Your task to perform on an android device: turn off location history Image 0: 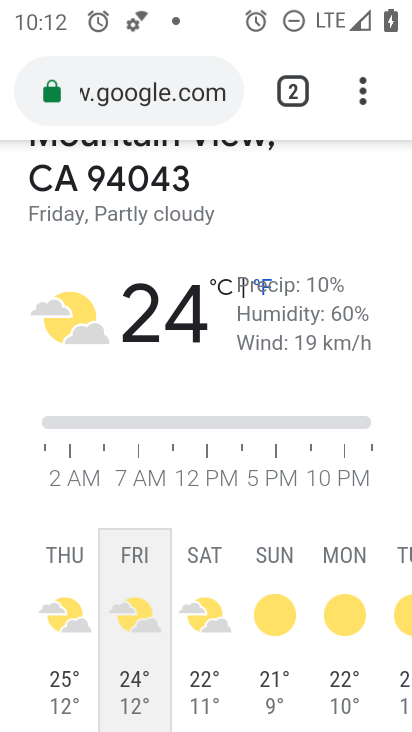
Step 0: press home button
Your task to perform on an android device: turn off location history Image 1: 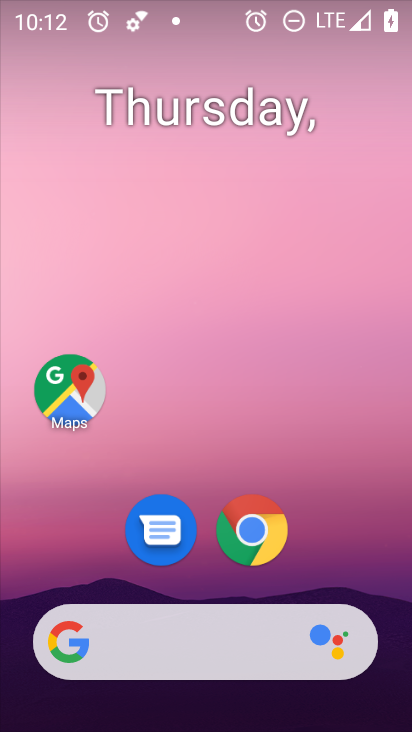
Step 1: drag from (325, 567) to (279, 38)
Your task to perform on an android device: turn off location history Image 2: 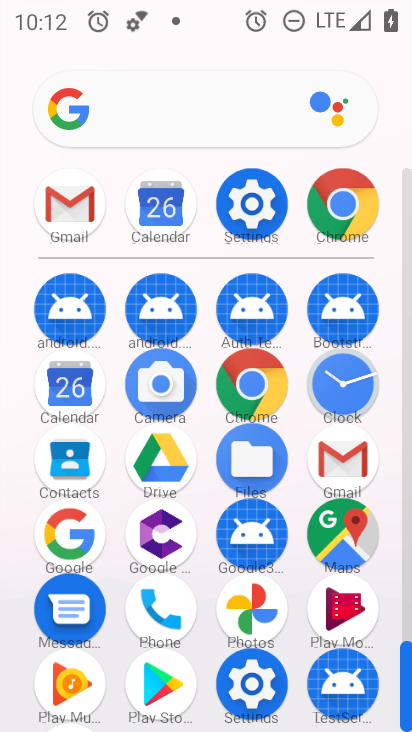
Step 2: drag from (10, 590) to (9, 254)
Your task to perform on an android device: turn off location history Image 3: 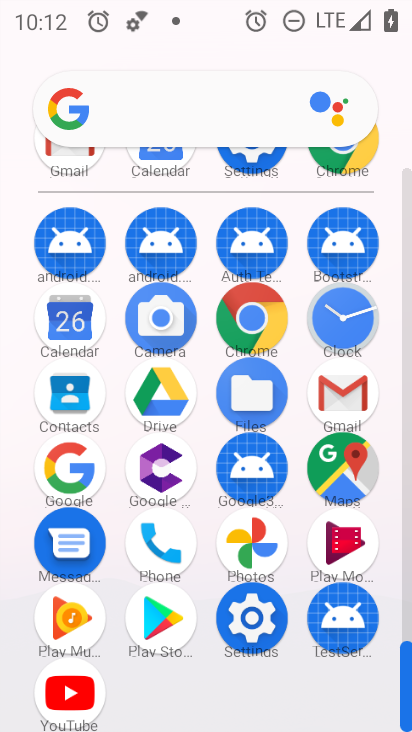
Step 3: click (249, 614)
Your task to perform on an android device: turn off location history Image 4: 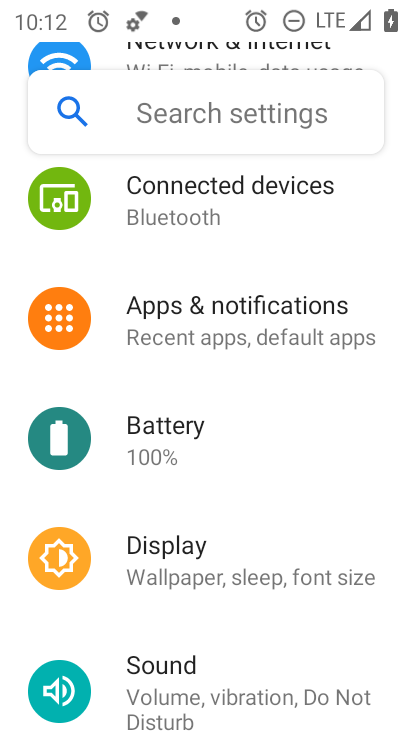
Step 4: drag from (265, 258) to (271, 665)
Your task to perform on an android device: turn off location history Image 5: 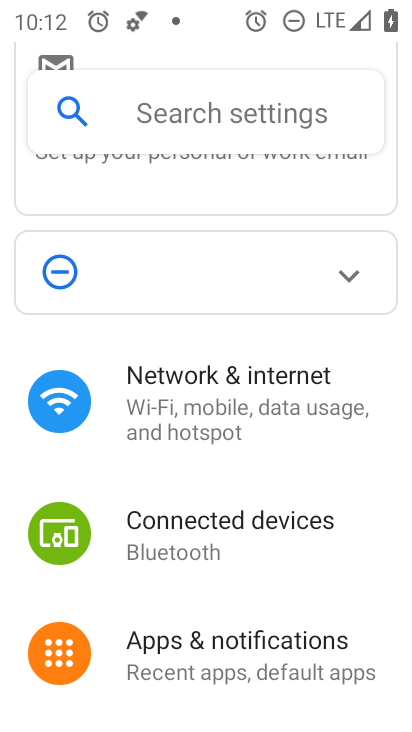
Step 5: drag from (267, 641) to (272, 256)
Your task to perform on an android device: turn off location history Image 6: 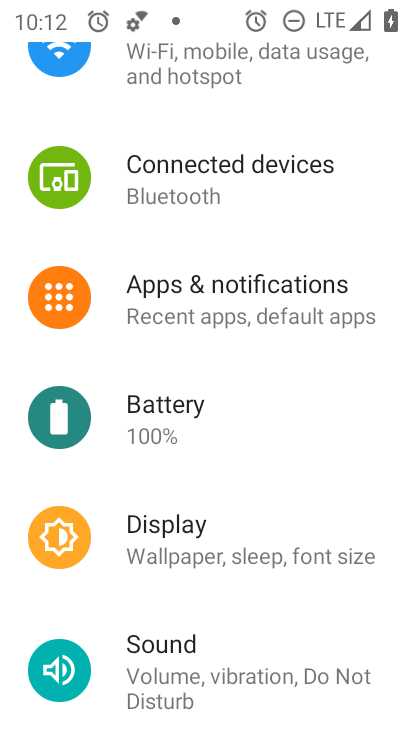
Step 6: drag from (251, 598) to (260, 234)
Your task to perform on an android device: turn off location history Image 7: 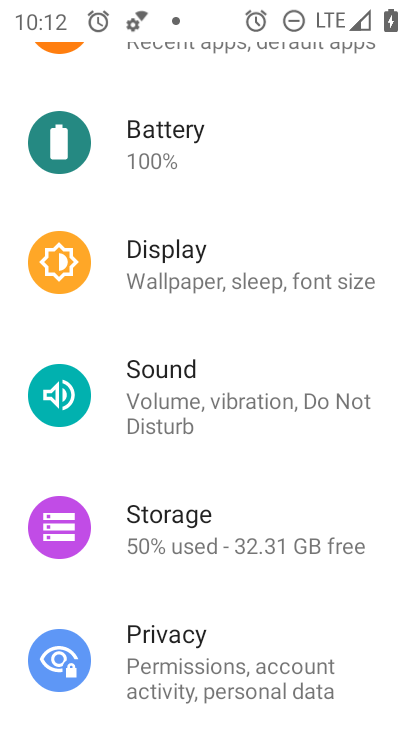
Step 7: drag from (263, 625) to (284, 168)
Your task to perform on an android device: turn off location history Image 8: 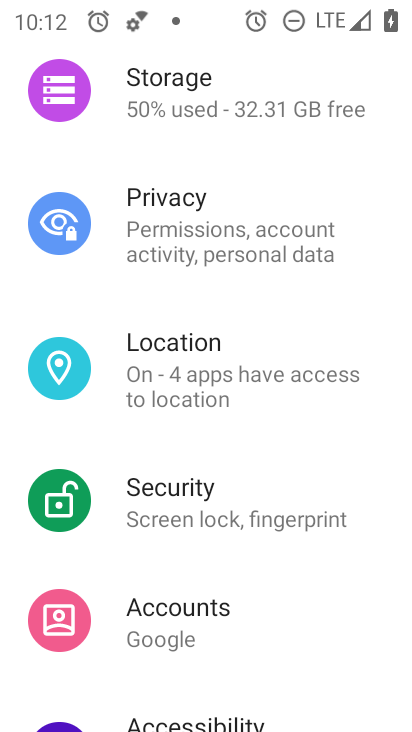
Step 8: click (249, 358)
Your task to perform on an android device: turn off location history Image 9: 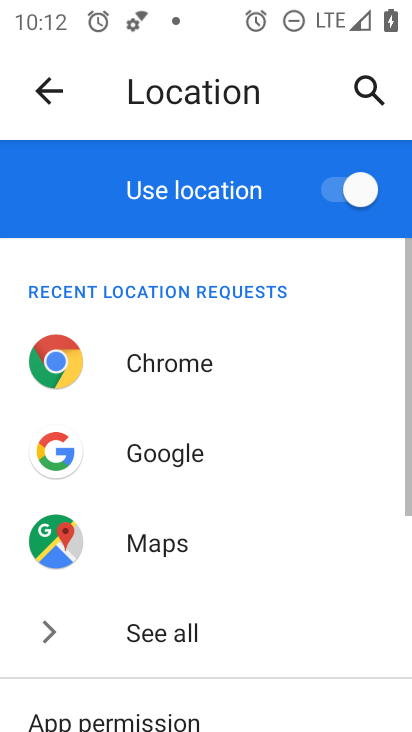
Step 9: click (349, 179)
Your task to perform on an android device: turn off location history Image 10: 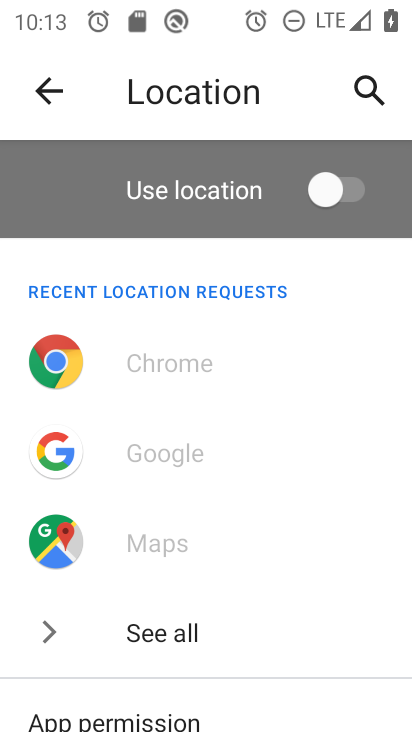
Step 10: click (325, 180)
Your task to perform on an android device: turn off location history Image 11: 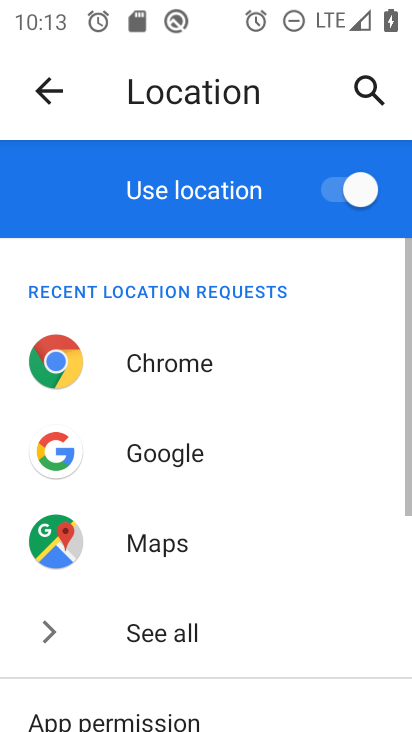
Step 11: drag from (266, 582) to (269, 122)
Your task to perform on an android device: turn off location history Image 12: 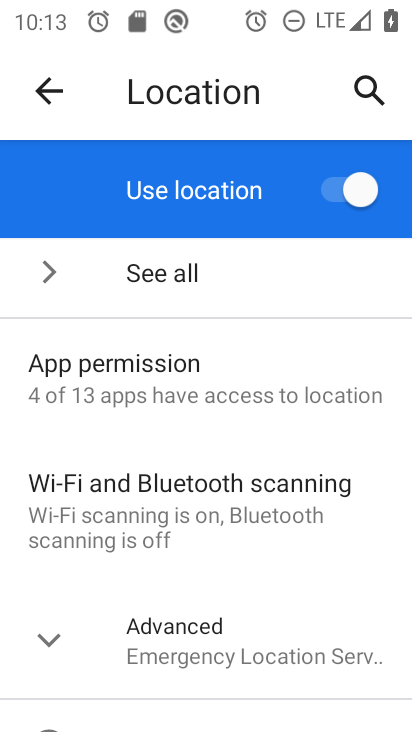
Step 12: drag from (238, 604) to (221, 238)
Your task to perform on an android device: turn off location history Image 13: 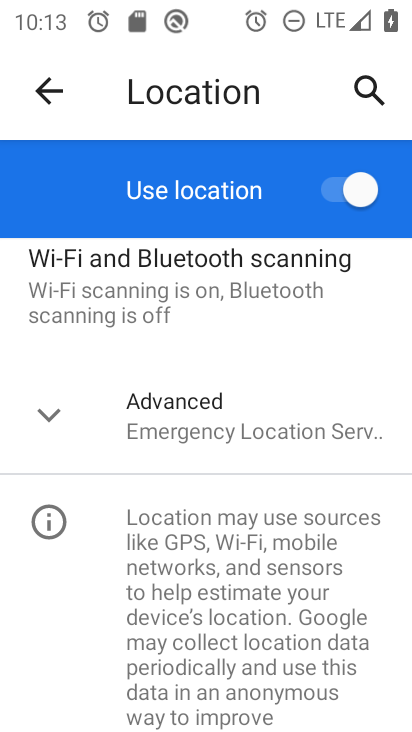
Step 13: click (95, 397)
Your task to perform on an android device: turn off location history Image 14: 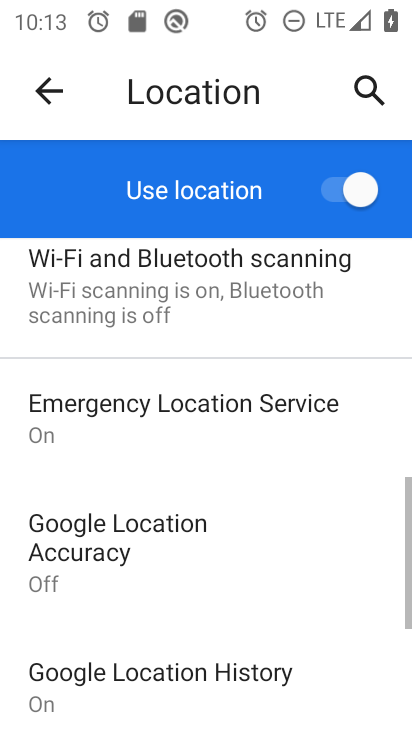
Step 14: drag from (212, 642) to (237, 336)
Your task to perform on an android device: turn off location history Image 15: 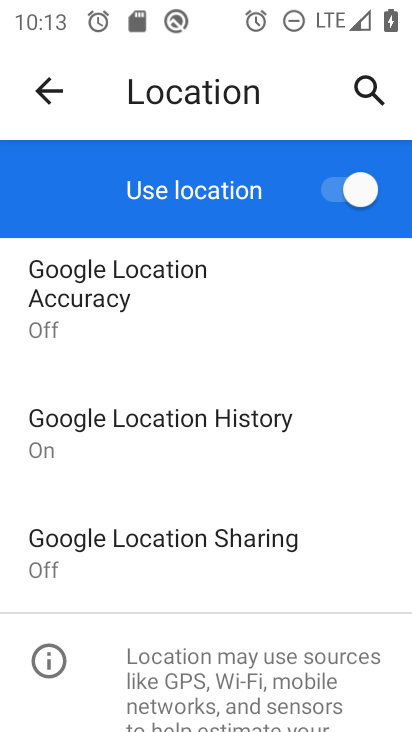
Step 15: click (217, 408)
Your task to perform on an android device: turn off location history Image 16: 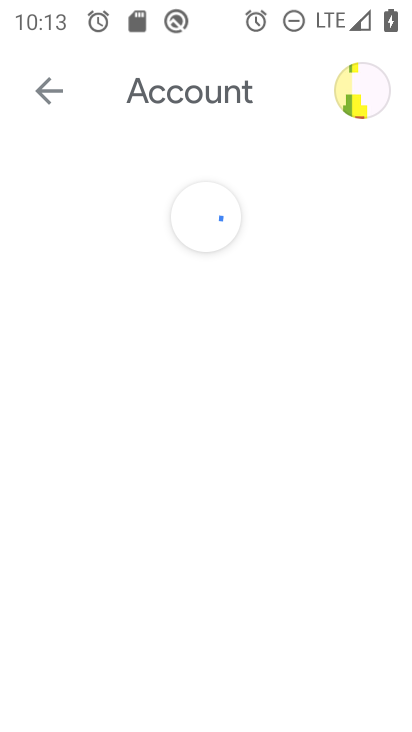
Step 16: task complete